Your task to perform on an android device: Play the last video I watched on Youtube Image 0: 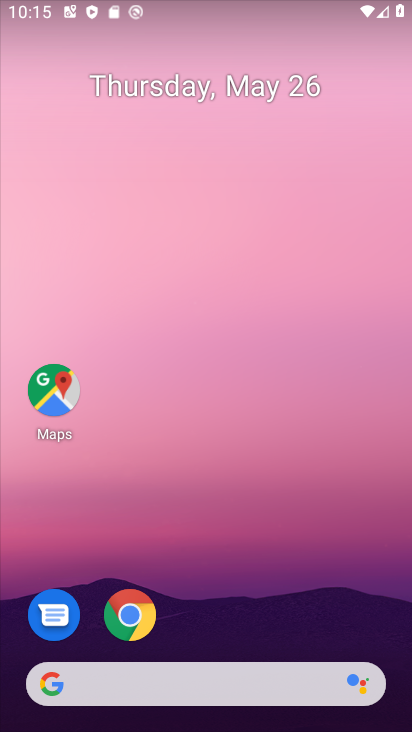
Step 0: drag from (240, 698) to (307, 1)
Your task to perform on an android device: Play the last video I watched on Youtube Image 1: 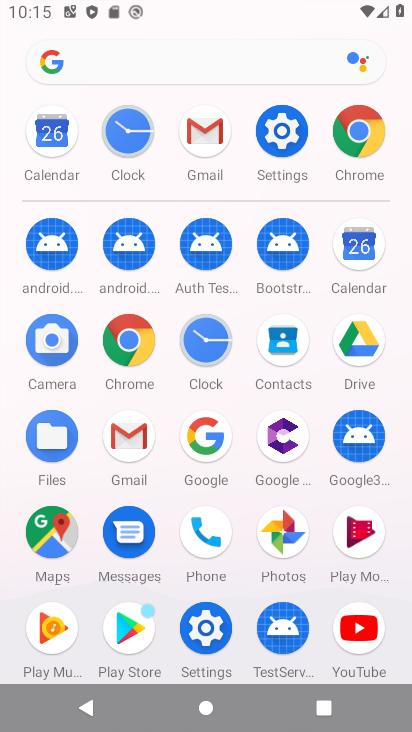
Step 1: click (374, 635)
Your task to perform on an android device: Play the last video I watched on Youtube Image 2: 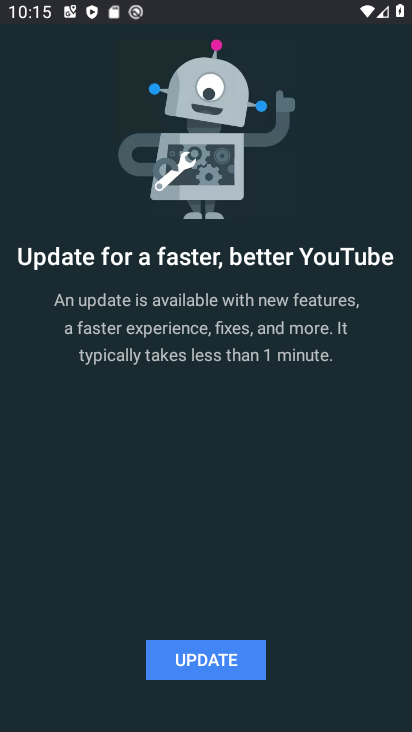
Step 2: click (244, 655)
Your task to perform on an android device: Play the last video I watched on Youtube Image 3: 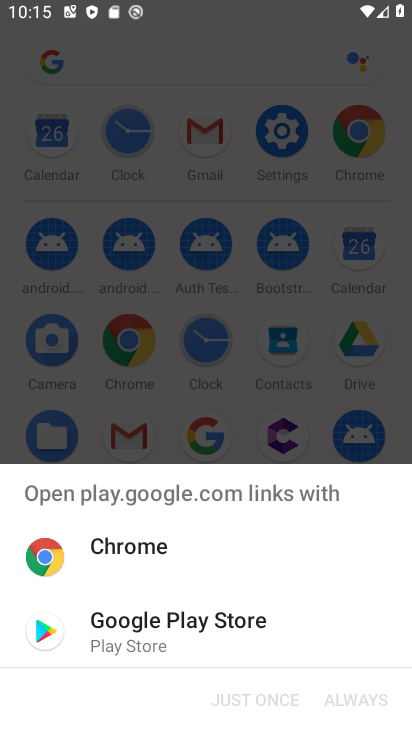
Step 3: click (134, 627)
Your task to perform on an android device: Play the last video I watched on Youtube Image 4: 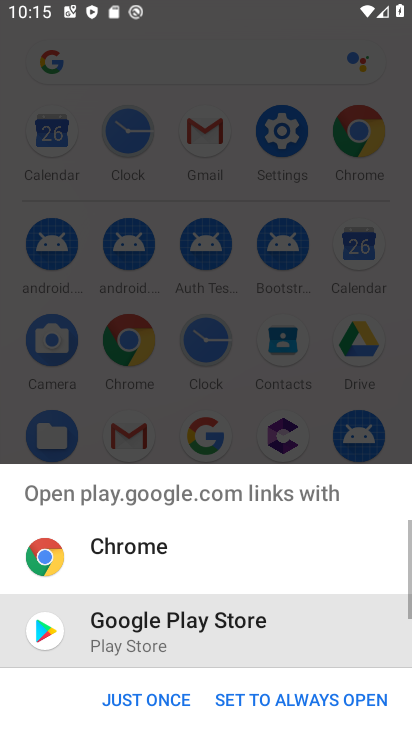
Step 4: click (158, 691)
Your task to perform on an android device: Play the last video I watched on Youtube Image 5: 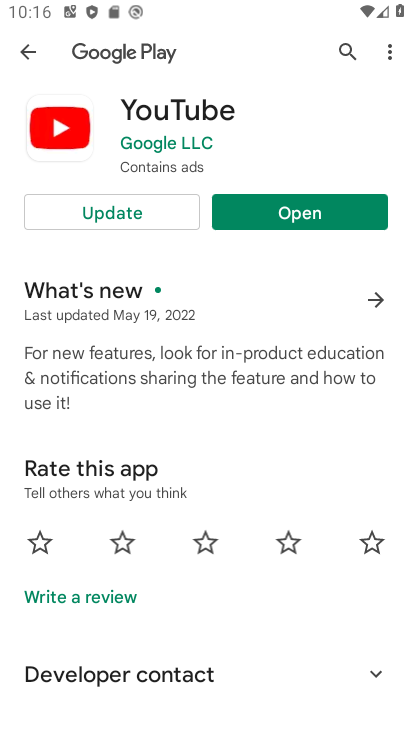
Step 5: click (331, 215)
Your task to perform on an android device: Play the last video I watched on Youtube Image 6: 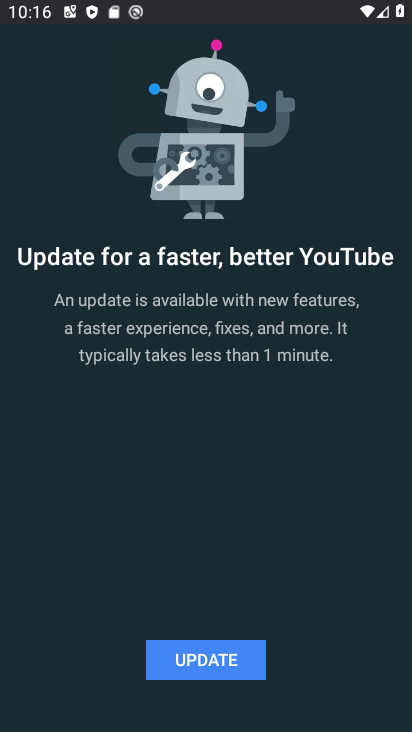
Step 6: click (215, 673)
Your task to perform on an android device: Play the last video I watched on Youtube Image 7: 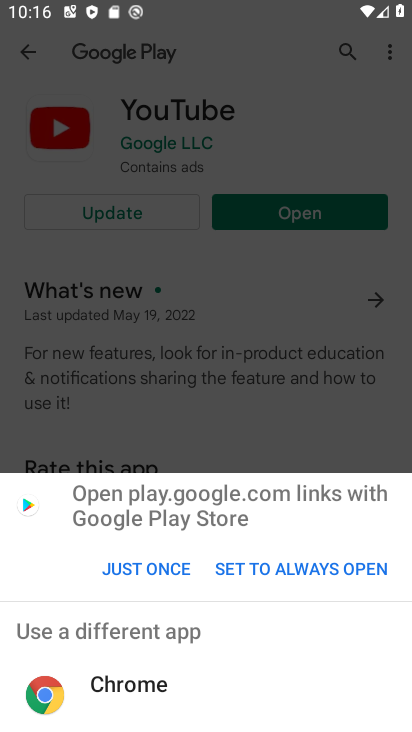
Step 7: click (147, 555)
Your task to perform on an android device: Play the last video I watched on Youtube Image 8: 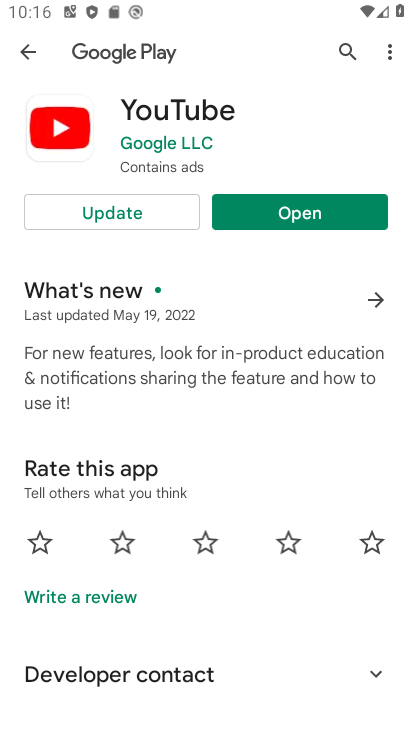
Step 8: click (152, 207)
Your task to perform on an android device: Play the last video I watched on Youtube Image 9: 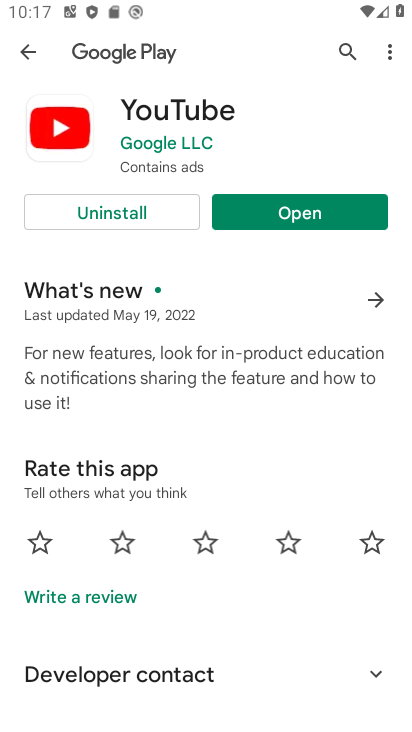
Step 9: click (256, 224)
Your task to perform on an android device: Play the last video I watched on Youtube Image 10: 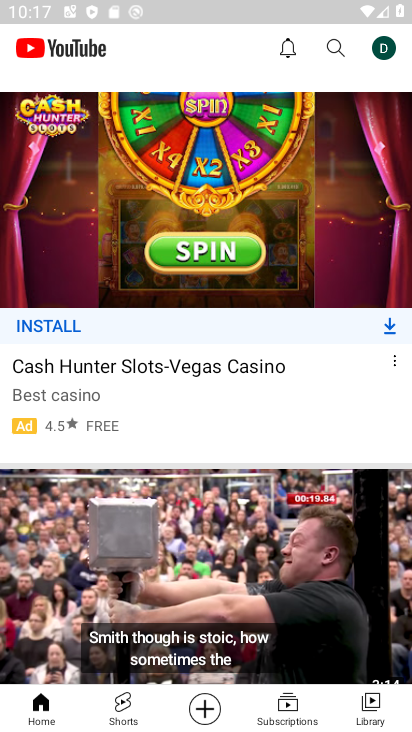
Step 10: click (359, 708)
Your task to perform on an android device: Play the last video I watched on Youtube Image 11: 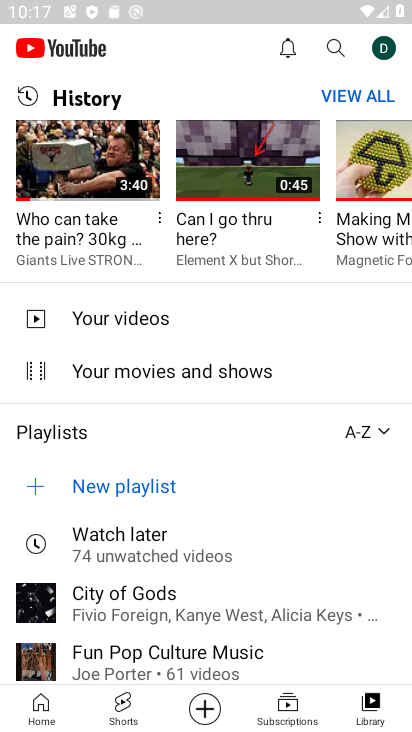
Step 11: click (94, 166)
Your task to perform on an android device: Play the last video I watched on Youtube Image 12: 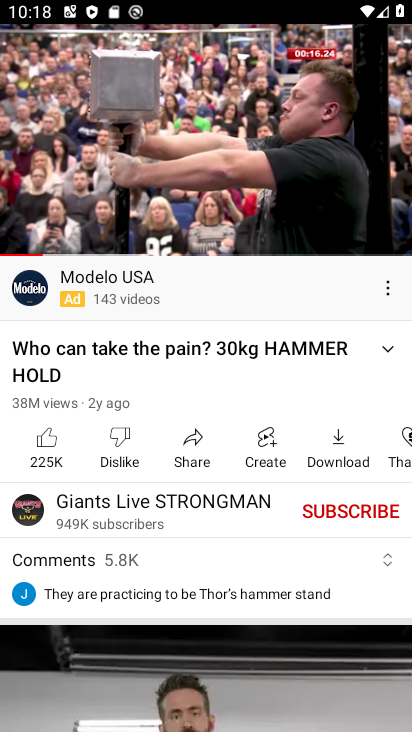
Step 12: task complete